Your task to perform on an android device: turn on javascript in the chrome app Image 0: 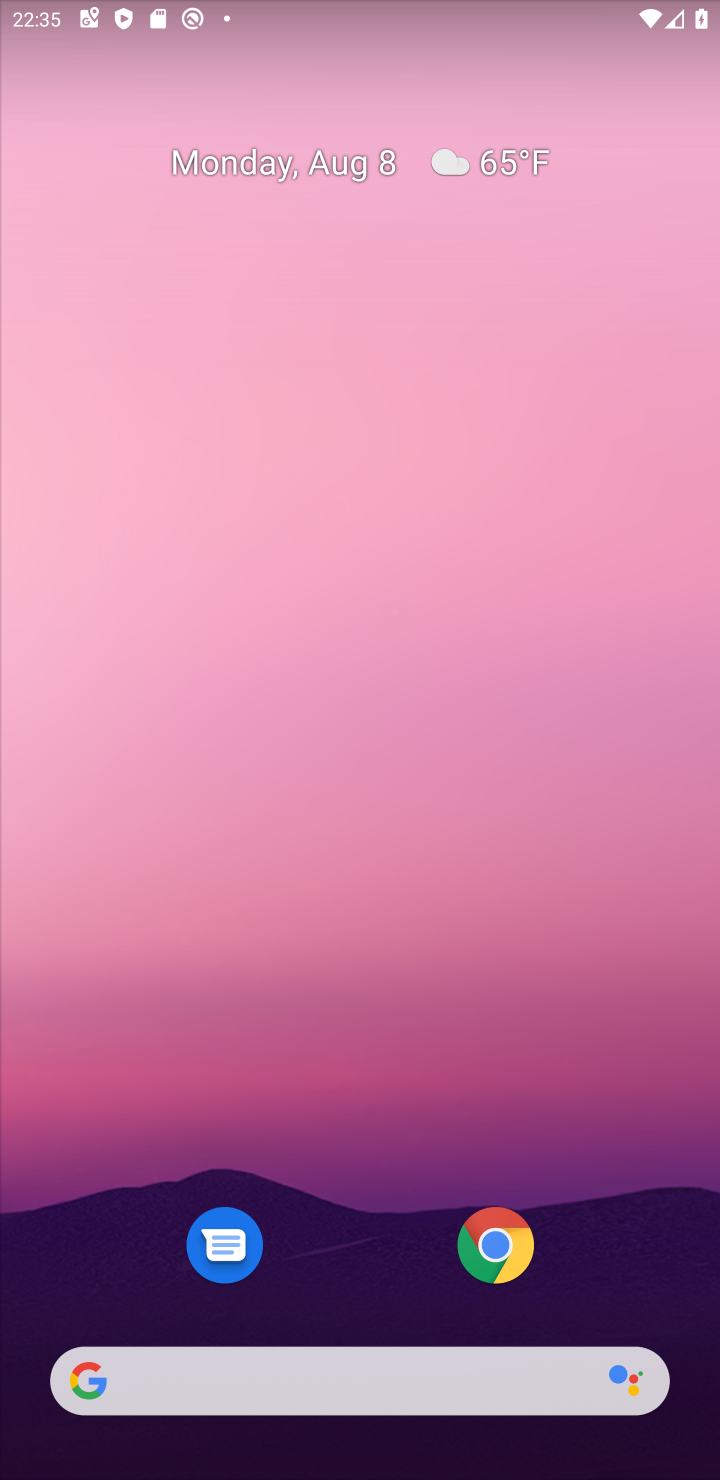
Step 0: press home button
Your task to perform on an android device: turn on javascript in the chrome app Image 1: 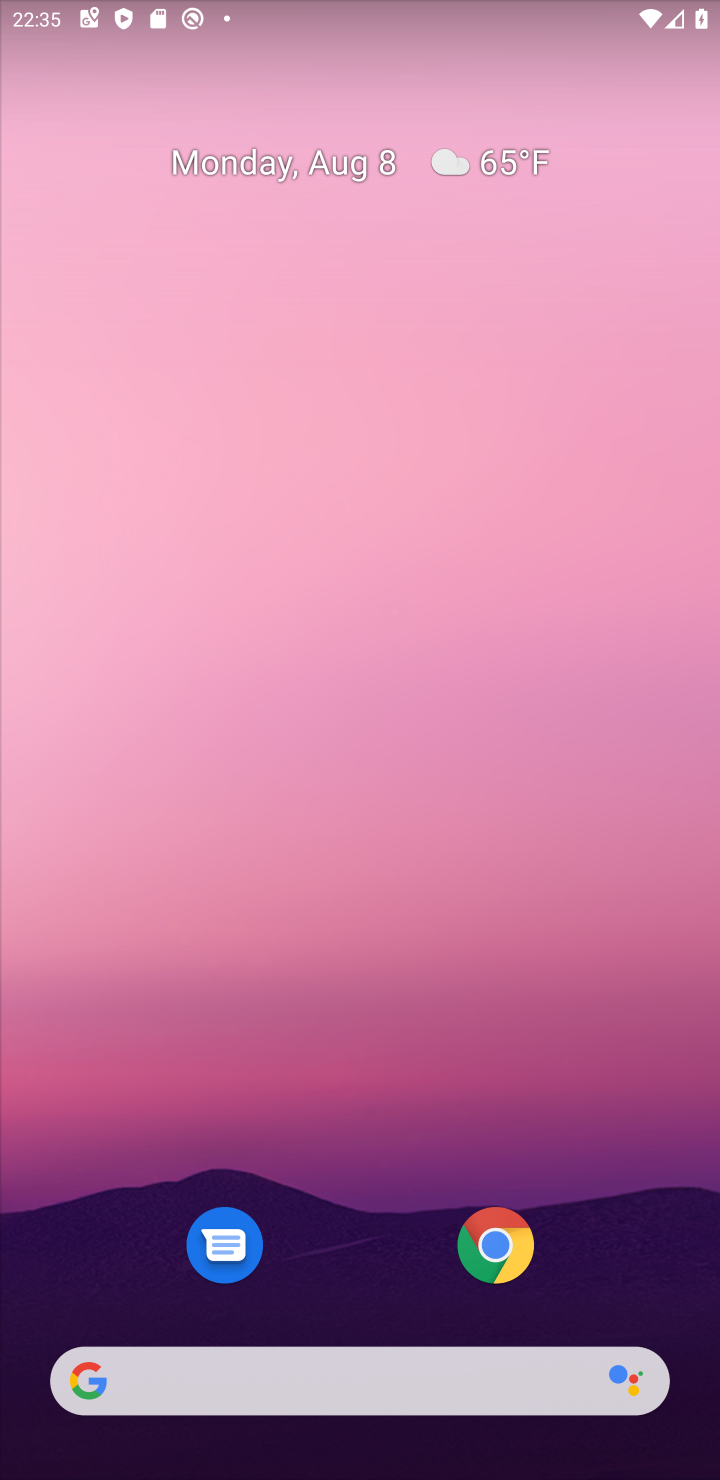
Step 1: click (500, 1249)
Your task to perform on an android device: turn on javascript in the chrome app Image 2: 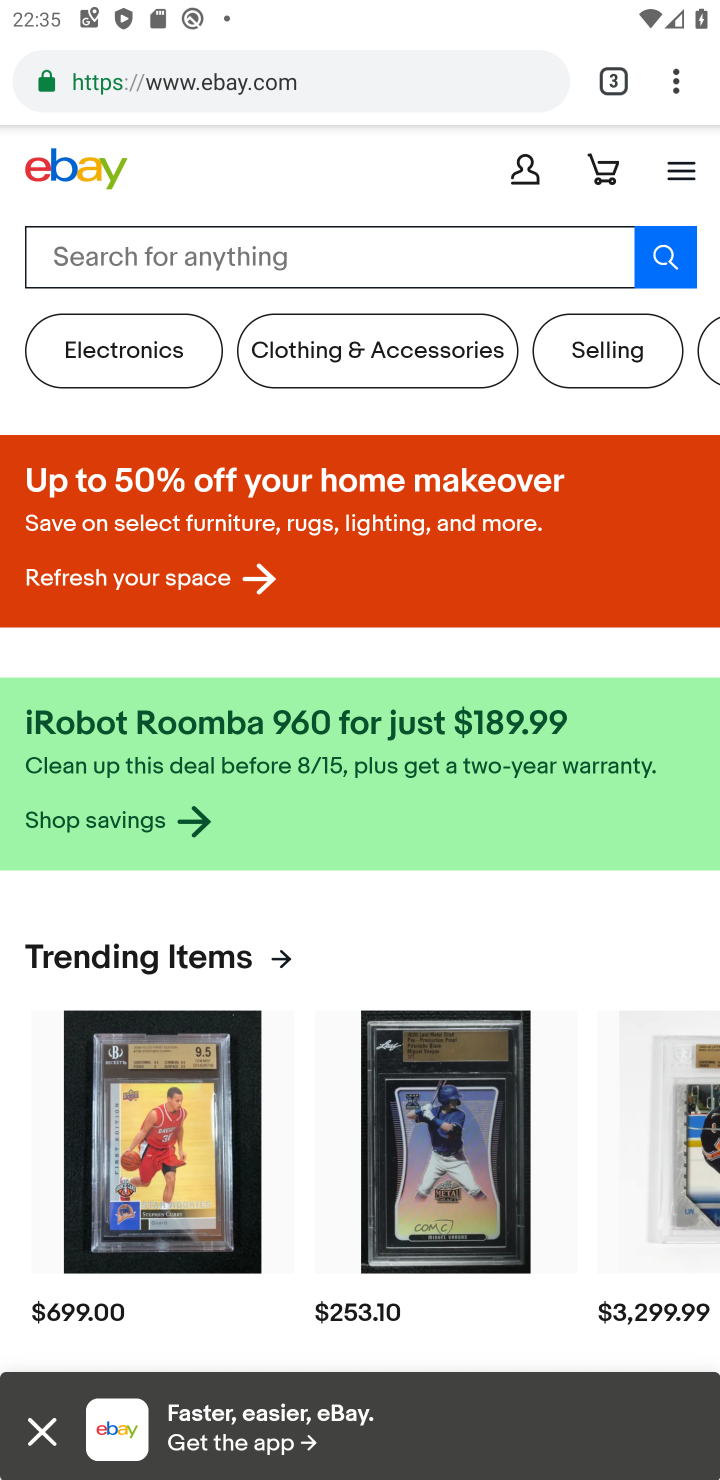
Step 2: click (673, 69)
Your task to perform on an android device: turn on javascript in the chrome app Image 3: 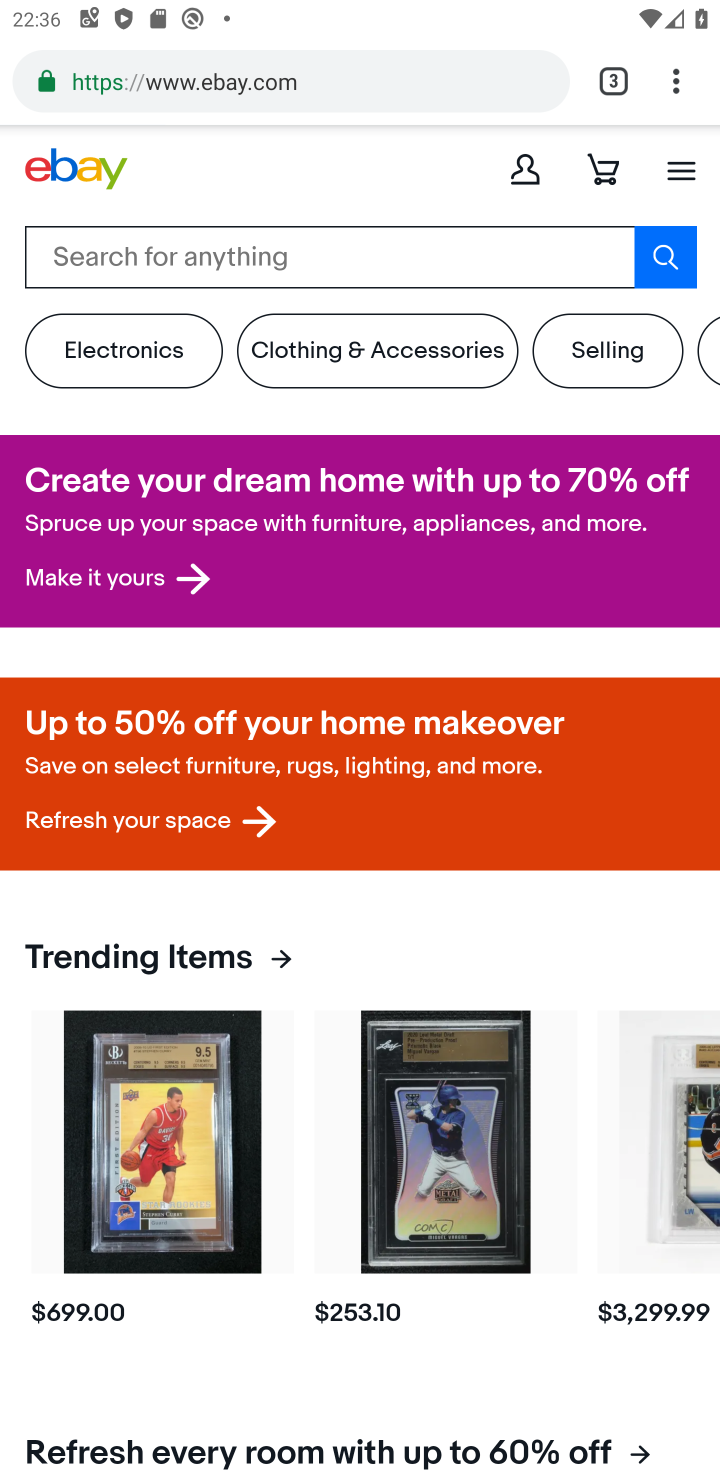
Step 3: click (643, 74)
Your task to perform on an android device: turn on javascript in the chrome app Image 4: 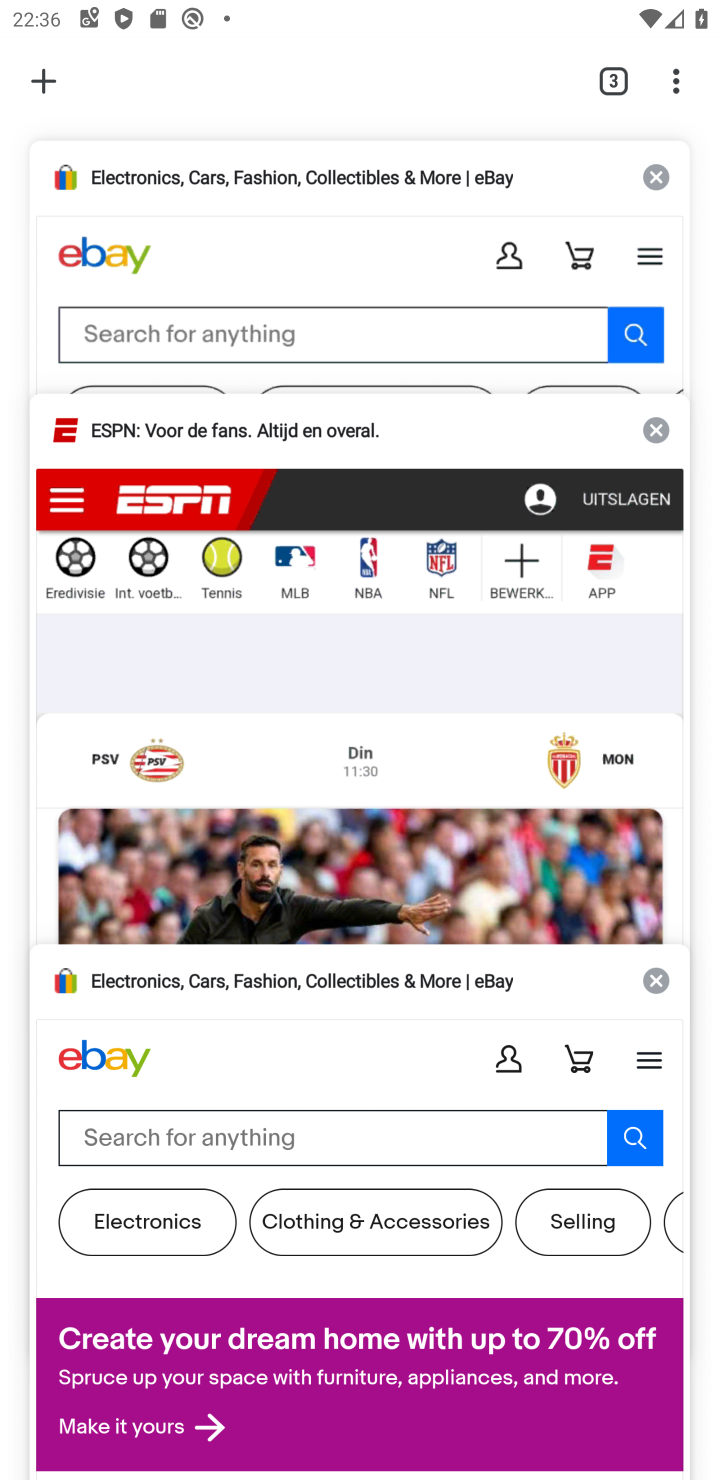
Step 4: click (652, 68)
Your task to perform on an android device: turn on javascript in the chrome app Image 5: 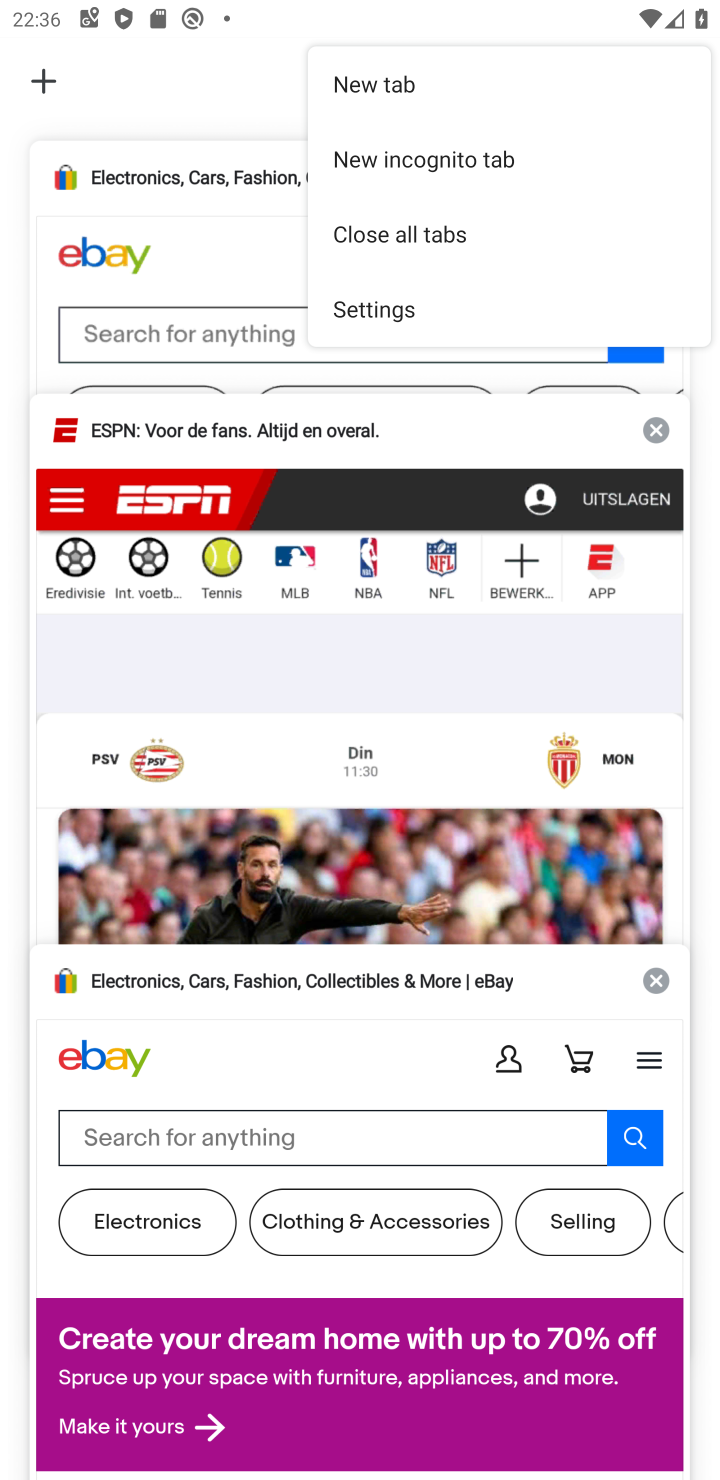
Step 5: click (380, 304)
Your task to perform on an android device: turn on javascript in the chrome app Image 6: 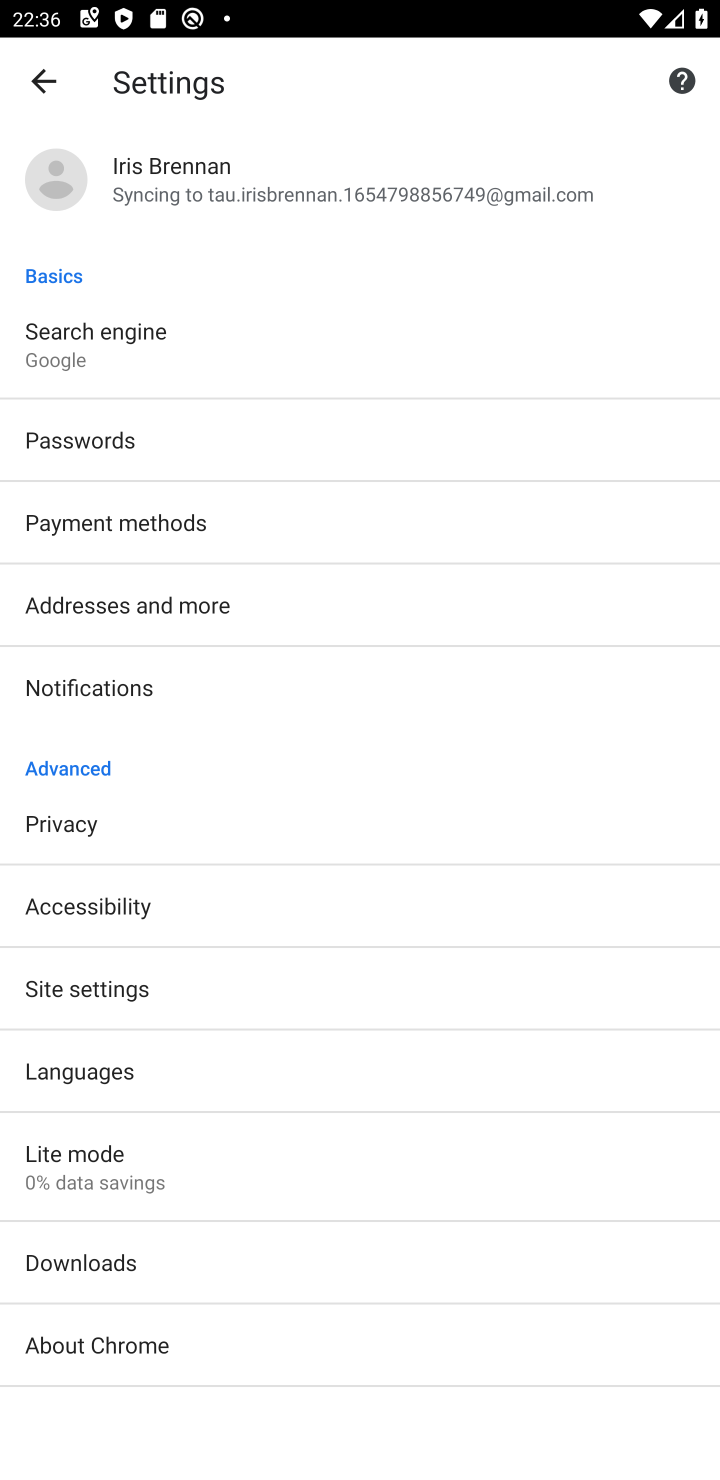
Step 6: click (87, 979)
Your task to perform on an android device: turn on javascript in the chrome app Image 7: 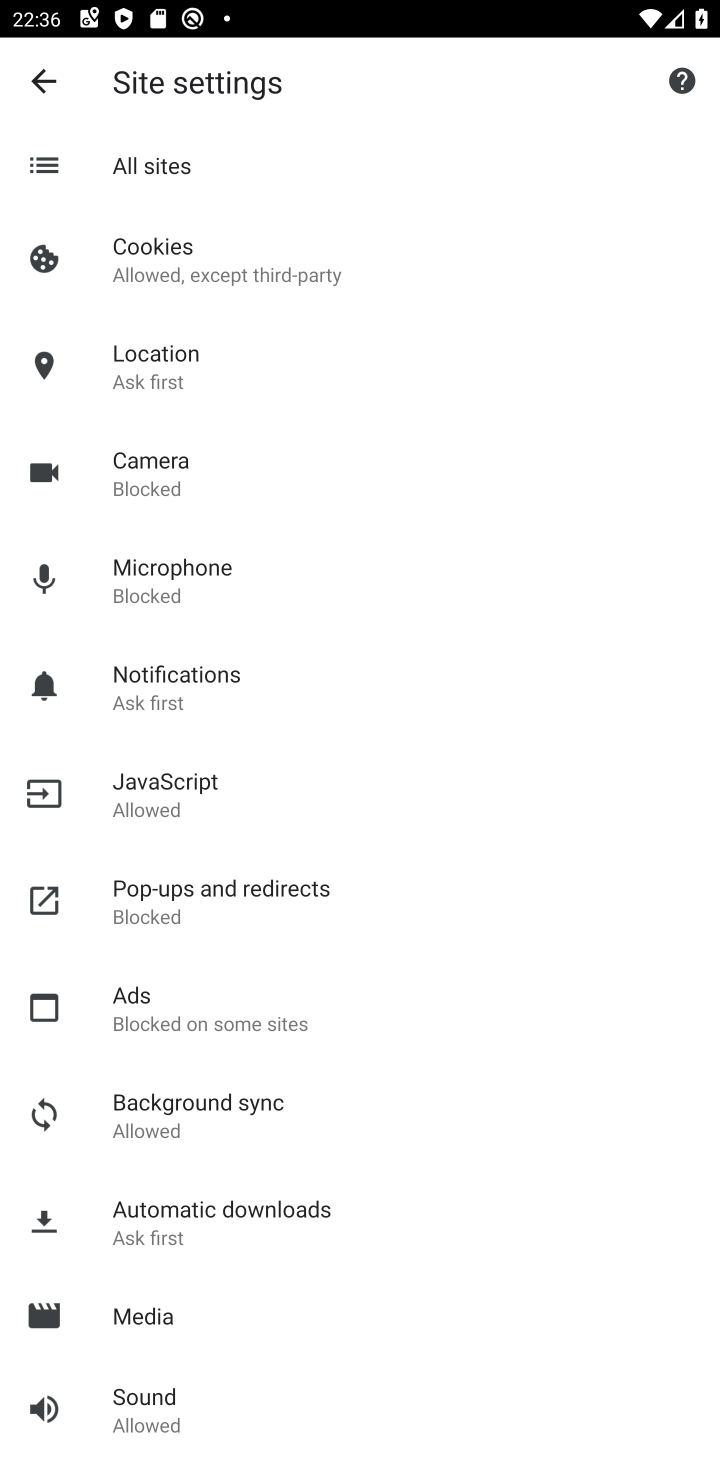
Step 7: click (164, 769)
Your task to perform on an android device: turn on javascript in the chrome app Image 8: 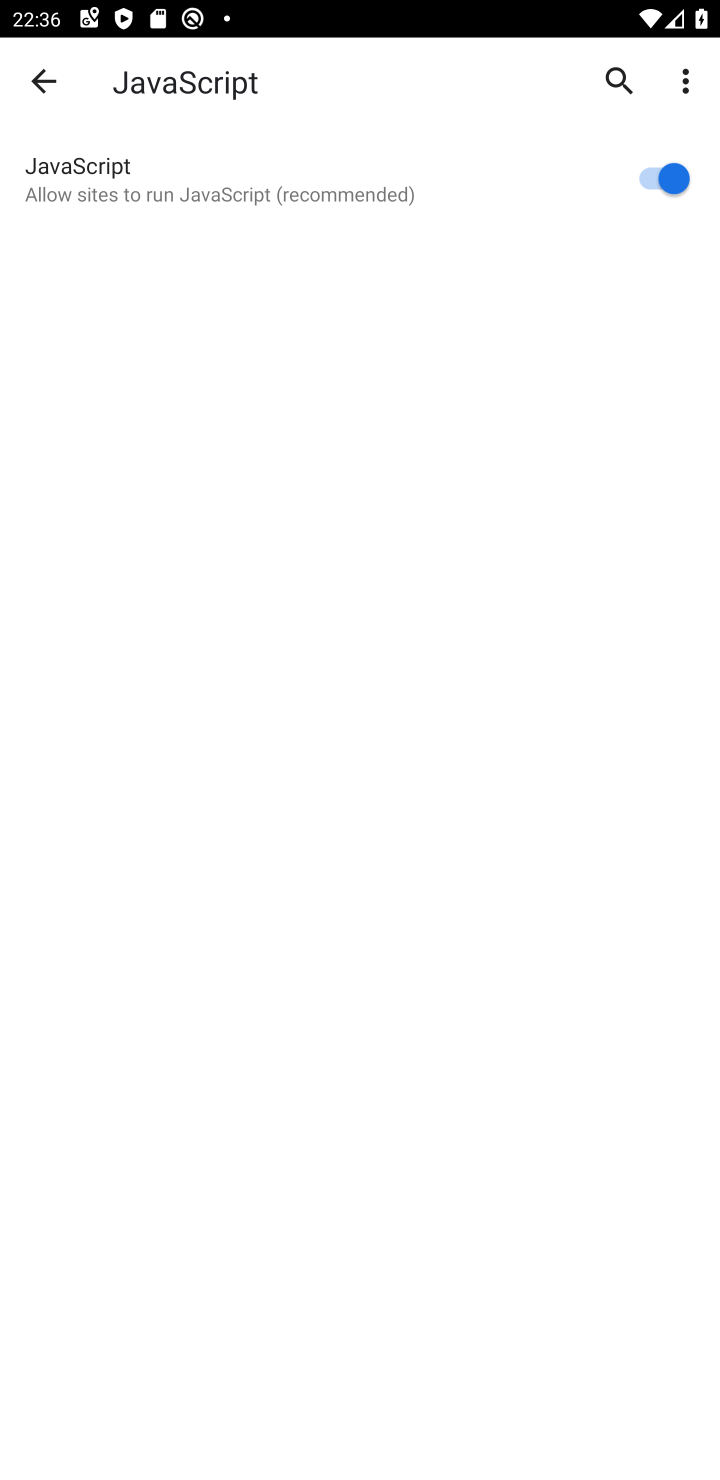
Step 8: task complete